Your task to perform on an android device: open wifi settings Image 0: 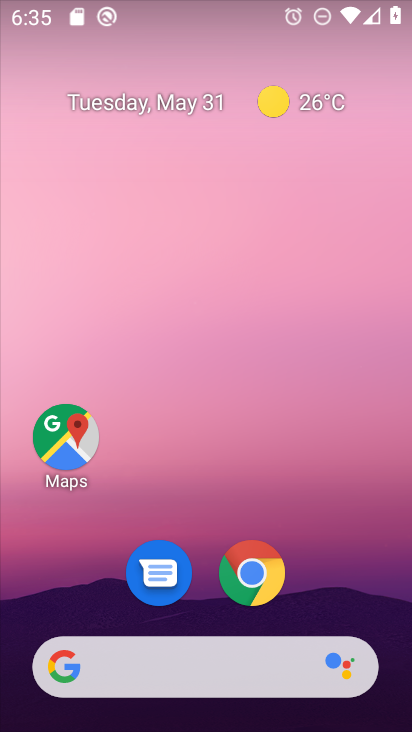
Step 0: drag from (389, 642) to (315, 65)
Your task to perform on an android device: open wifi settings Image 1: 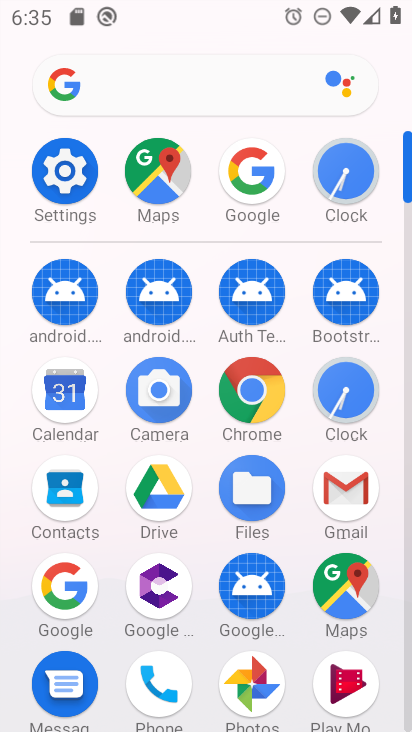
Step 1: click (50, 177)
Your task to perform on an android device: open wifi settings Image 2: 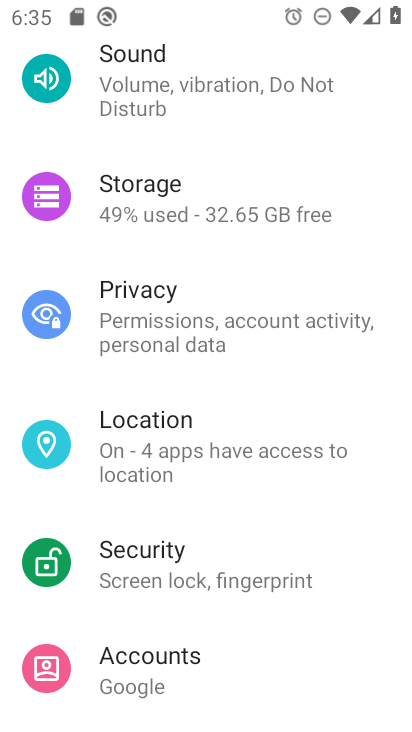
Step 2: drag from (165, 135) to (263, 649)
Your task to perform on an android device: open wifi settings Image 3: 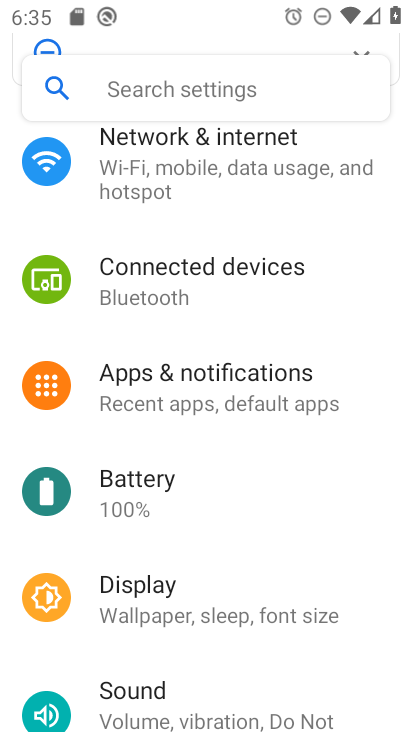
Step 3: click (184, 202)
Your task to perform on an android device: open wifi settings Image 4: 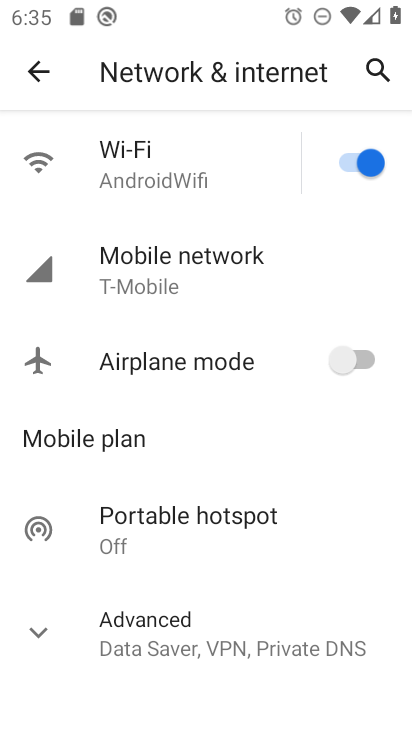
Step 4: click (176, 152)
Your task to perform on an android device: open wifi settings Image 5: 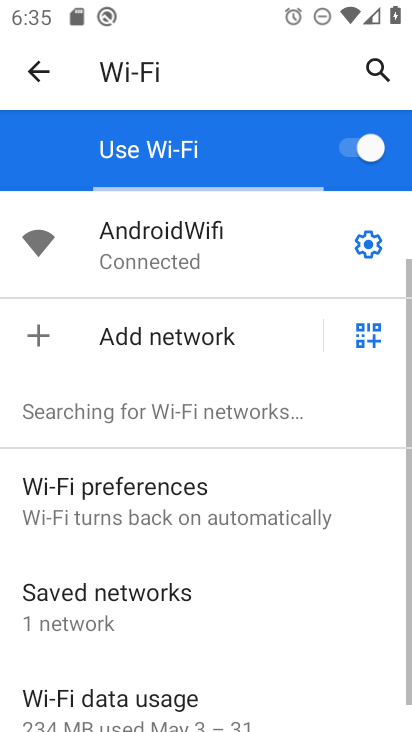
Step 5: task complete